Your task to perform on an android device: change notification settings in the gmail app Image 0: 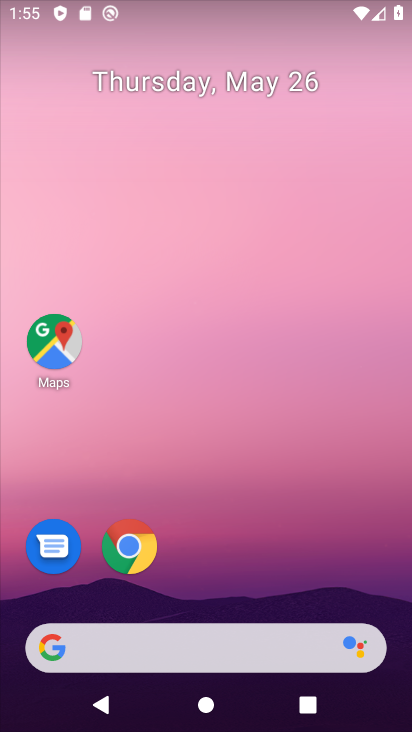
Step 0: drag from (235, 560) to (278, 180)
Your task to perform on an android device: change notification settings in the gmail app Image 1: 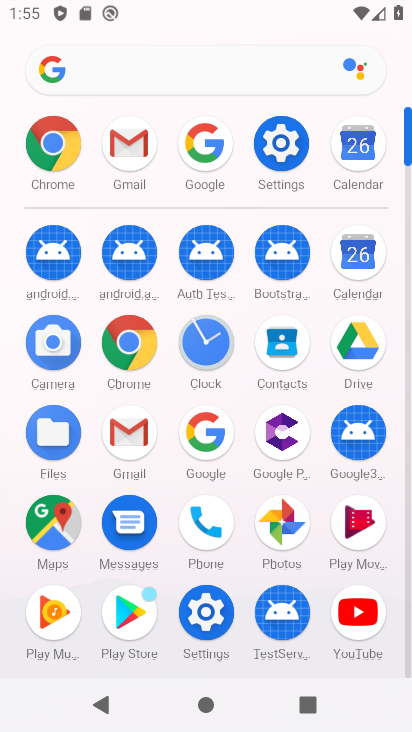
Step 1: click (126, 149)
Your task to perform on an android device: change notification settings in the gmail app Image 2: 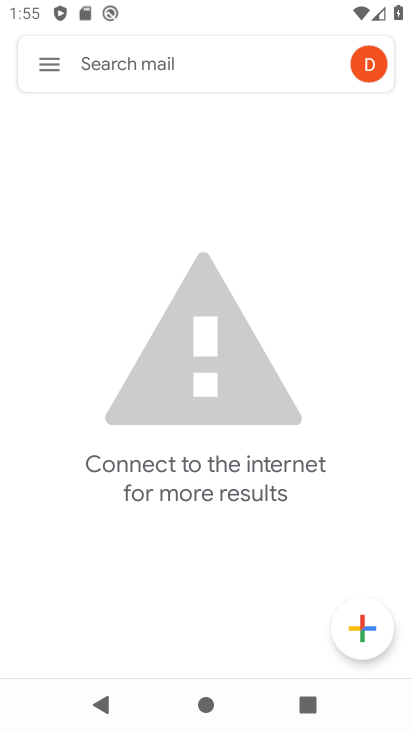
Step 2: click (37, 65)
Your task to perform on an android device: change notification settings in the gmail app Image 3: 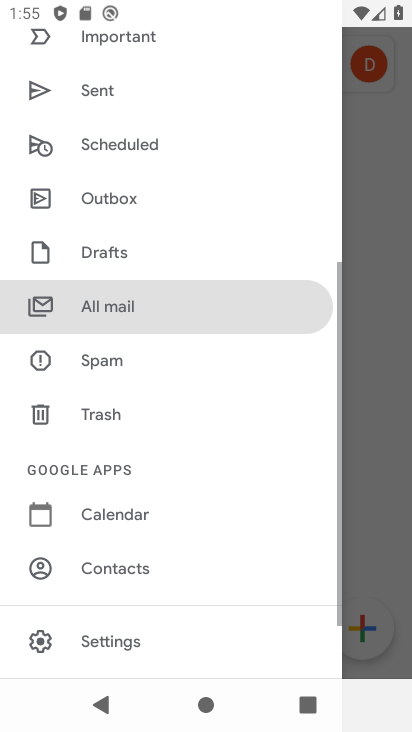
Step 3: drag from (125, 464) to (162, 302)
Your task to perform on an android device: change notification settings in the gmail app Image 4: 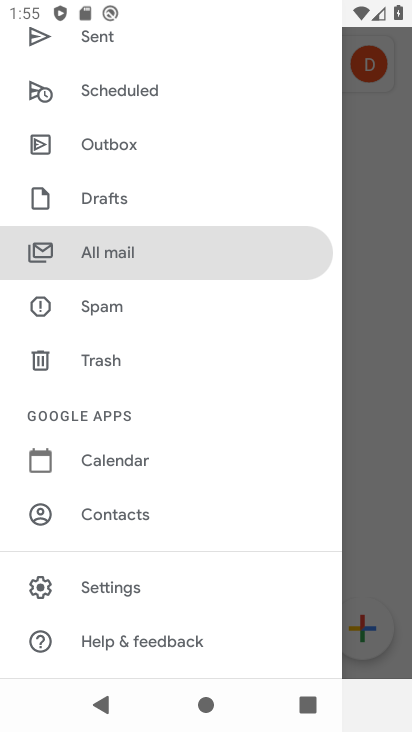
Step 4: click (105, 582)
Your task to perform on an android device: change notification settings in the gmail app Image 5: 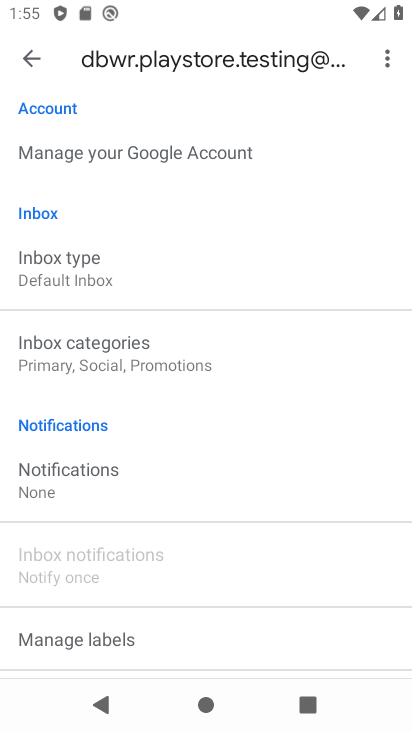
Step 5: click (97, 477)
Your task to perform on an android device: change notification settings in the gmail app Image 6: 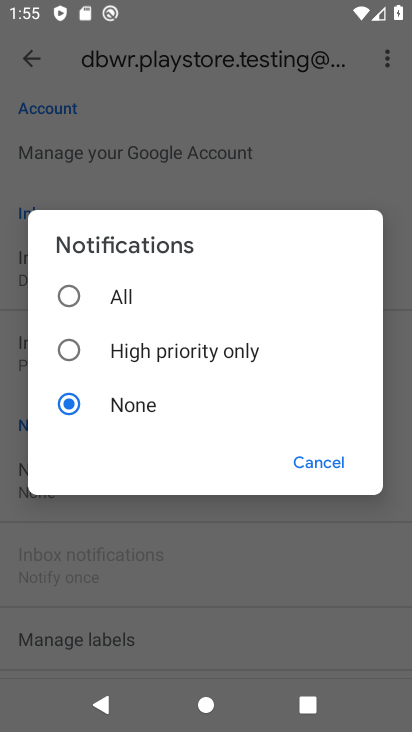
Step 6: click (73, 297)
Your task to perform on an android device: change notification settings in the gmail app Image 7: 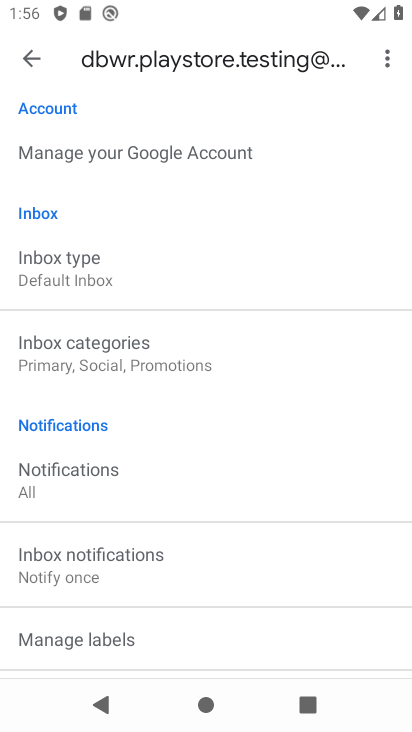
Step 7: task complete